Your task to perform on an android device: Search for sushi restaurants on Maps Image 0: 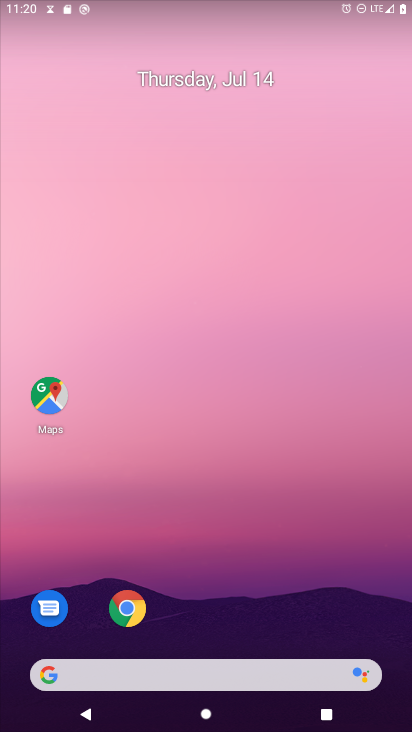
Step 0: drag from (237, 718) to (217, 352)
Your task to perform on an android device: Search for sushi restaurants on Maps Image 1: 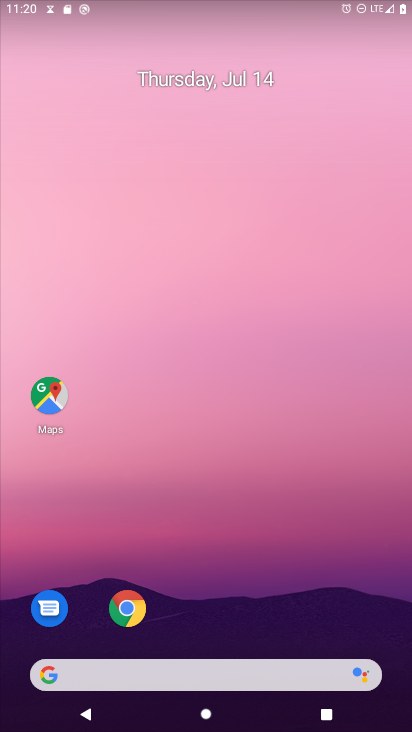
Step 1: drag from (230, 716) to (199, 176)
Your task to perform on an android device: Search for sushi restaurants on Maps Image 2: 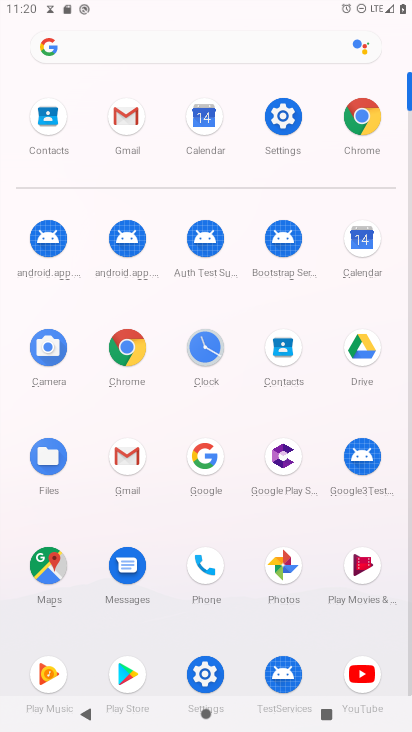
Step 2: click (46, 573)
Your task to perform on an android device: Search for sushi restaurants on Maps Image 3: 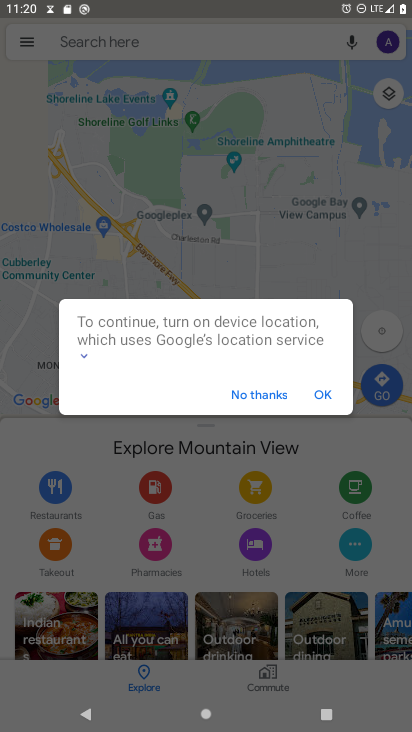
Step 3: click (270, 398)
Your task to perform on an android device: Search for sushi restaurants on Maps Image 4: 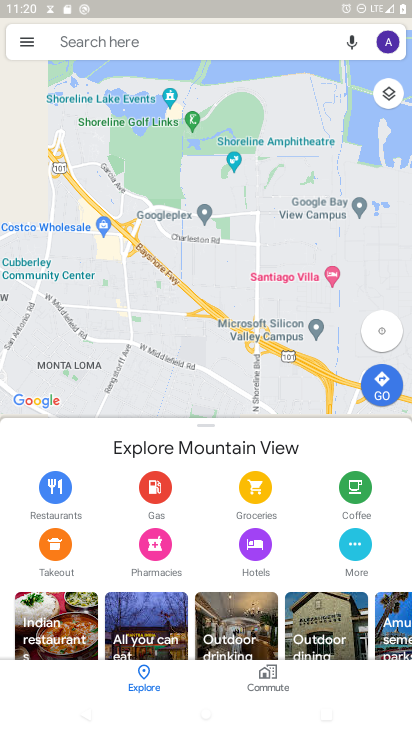
Step 4: click (203, 33)
Your task to perform on an android device: Search for sushi restaurants on Maps Image 5: 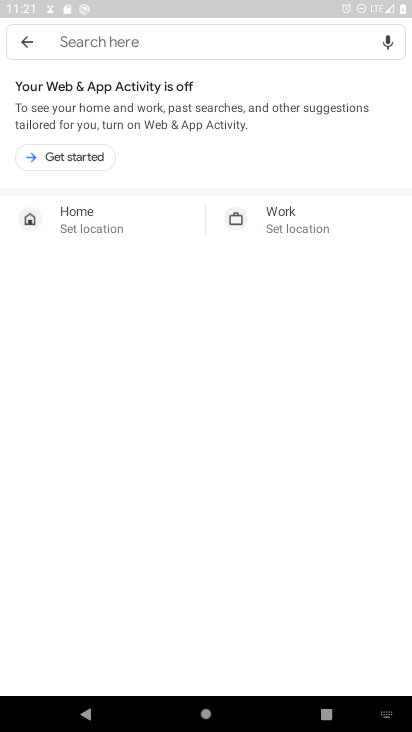
Step 5: type "sushi restaurants"
Your task to perform on an android device: Search for sushi restaurants on Maps Image 6: 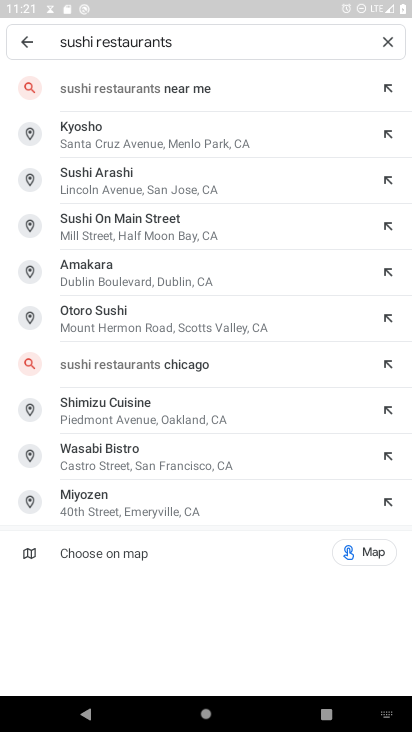
Step 6: click (135, 86)
Your task to perform on an android device: Search for sushi restaurants on Maps Image 7: 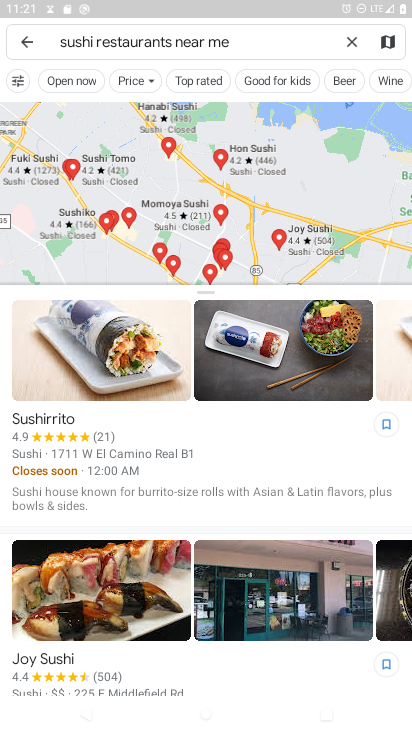
Step 7: task complete